Your task to perform on an android device: Go to settings Image 0: 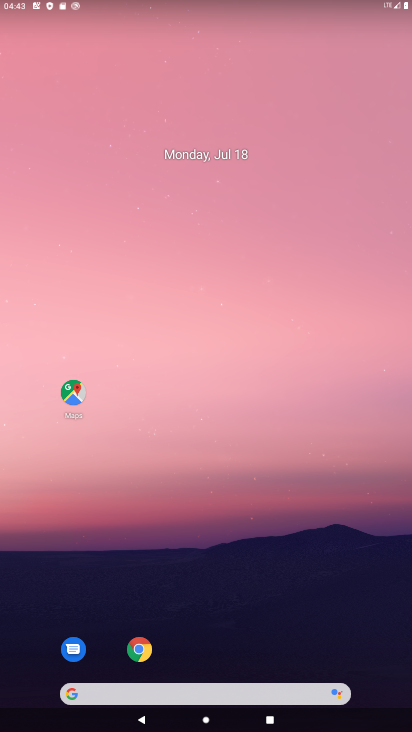
Step 0: drag from (183, 383) to (189, 135)
Your task to perform on an android device: Go to settings Image 1: 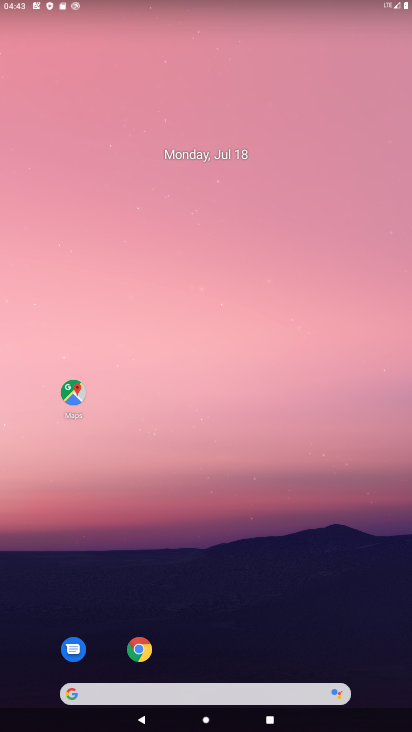
Step 1: drag from (217, 652) to (267, 187)
Your task to perform on an android device: Go to settings Image 2: 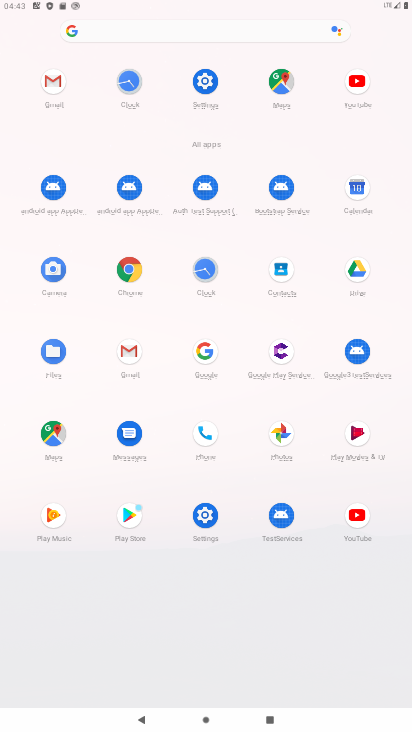
Step 2: click (196, 84)
Your task to perform on an android device: Go to settings Image 3: 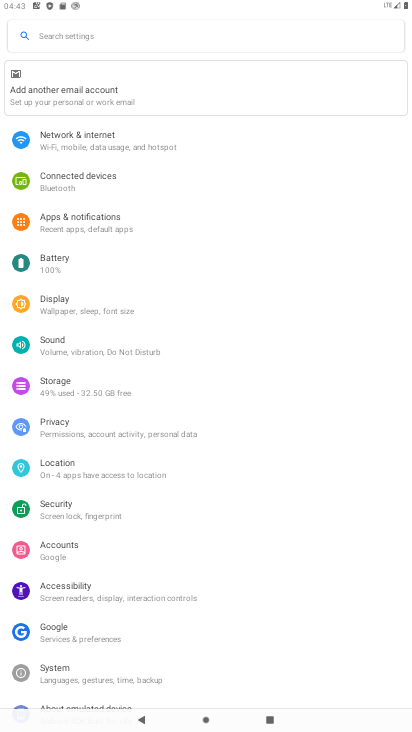
Step 3: task complete